Your task to perform on an android device: Open Google Chrome and open the bookmarks view Image 0: 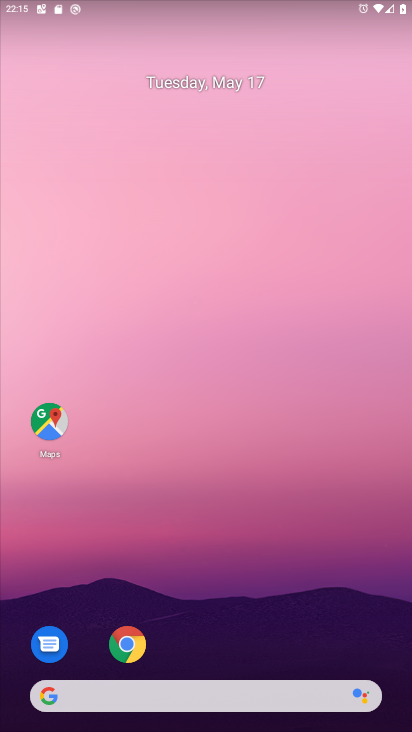
Step 0: click (125, 639)
Your task to perform on an android device: Open Google Chrome and open the bookmarks view Image 1: 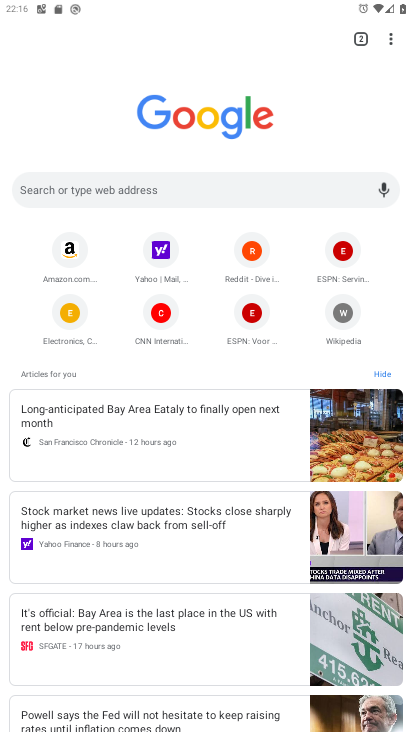
Step 1: click (391, 32)
Your task to perform on an android device: Open Google Chrome and open the bookmarks view Image 2: 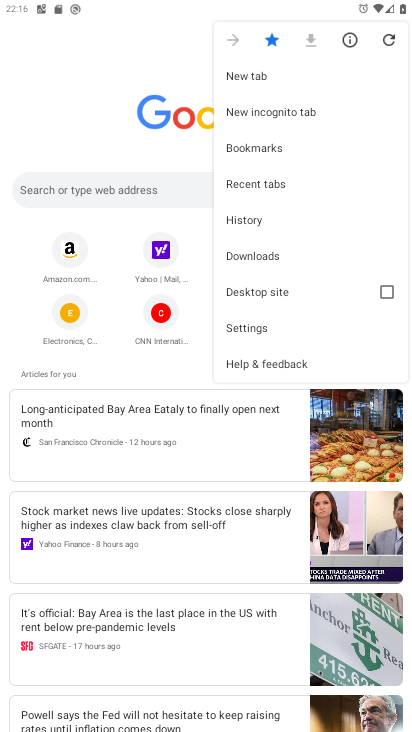
Step 2: click (289, 141)
Your task to perform on an android device: Open Google Chrome and open the bookmarks view Image 3: 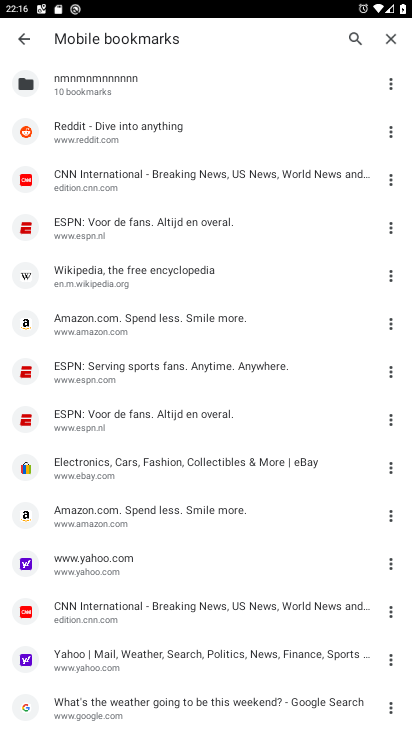
Step 3: task complete